Your task to perform on an android device: turn off javascript in the chrome app Image 0: 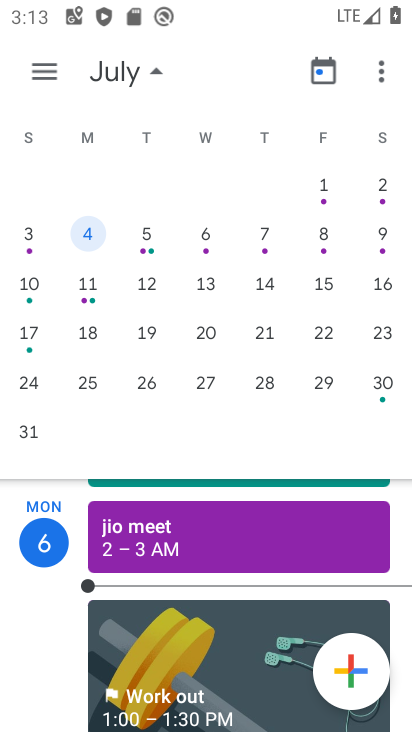
Step 0: press home button
Your task to perform on an android device: turn off javascript in the chrome app Image 1: 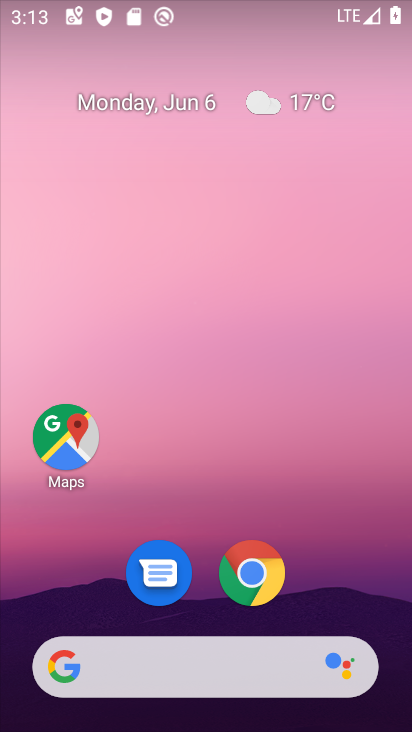
Step 1: drag from (346, 579) to (329, 142)
Your task to perform on an android device: turn off javascript in the chrome app Image 2: 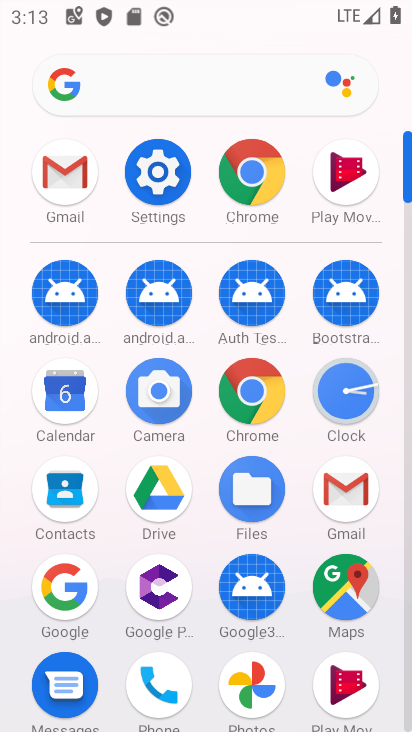
Step 2: click (261, 399)
Your task to perform on an android device: turn off javascript in the chrome app Image 3: 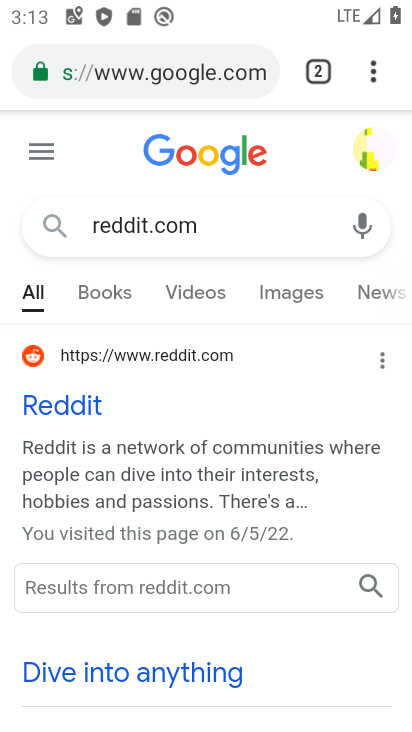
Step 3: click (373, 80)
Your task to perform on an android device: turn off javascript in the chrome app Image 4: 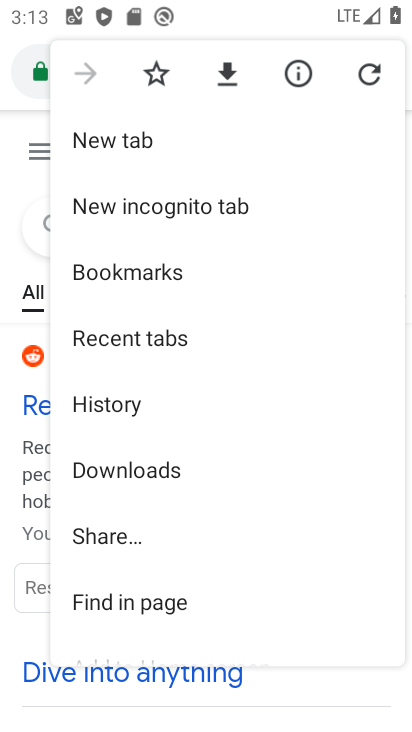
Step 4: drag from (297, 546) to (306, 434)
Your task to perform on an android device: turn off javascript in the chrome app Image 5: 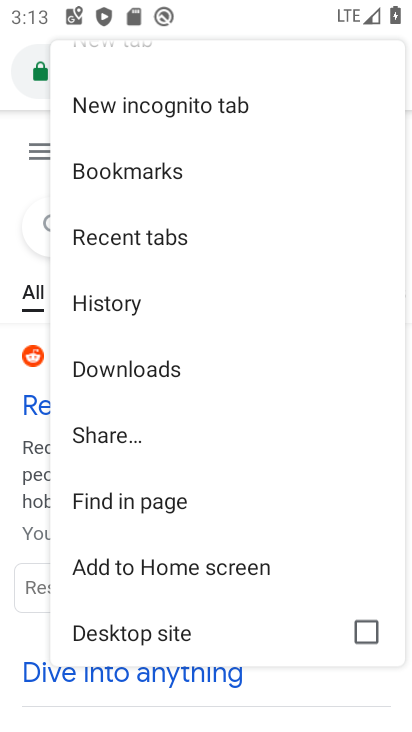
Step 5: drag from (308, 541) to (308, 418)
Your task to perform on an android device: turn off javascript in the chrome app Image 6: 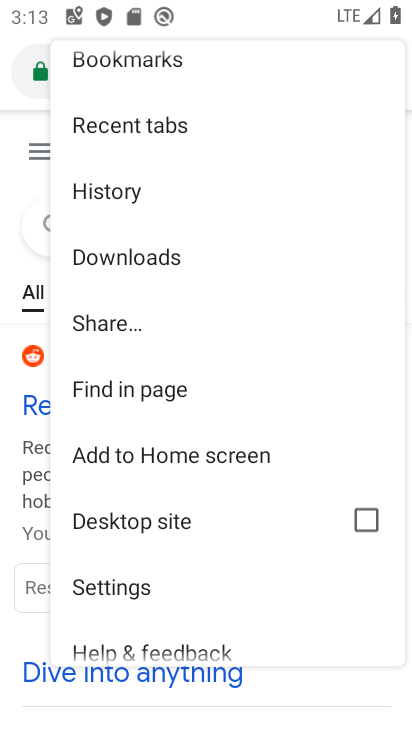
Step 6: click (140, 600)
Your task to perform on an android device: turn off javascript in the chrome app Image 7: 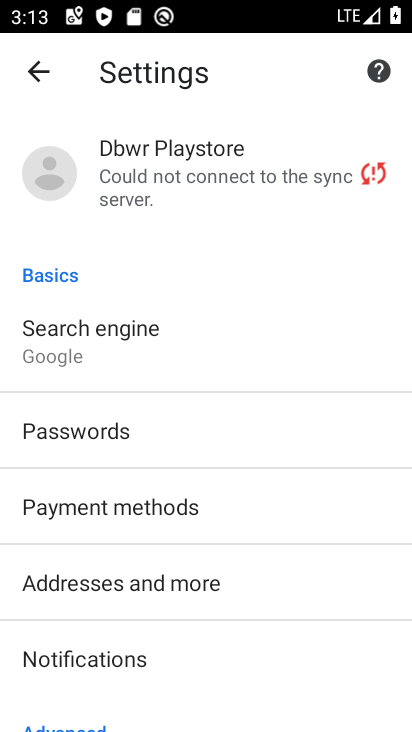
Step 7: drag from (309, 618) to (305, 515)
Your task to perform on an android device: turn off javascript in the chrome app Image 8: 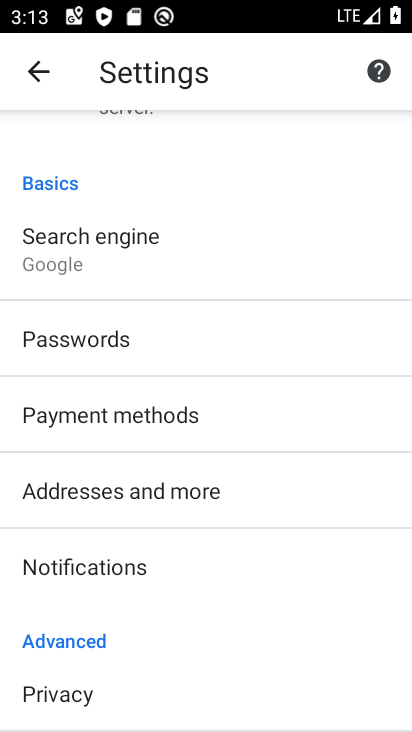
Step 8: drag from (308, 614) to (308, 530)
Your task to perform on an android device: turn off javascript in the chrome app Image 9: 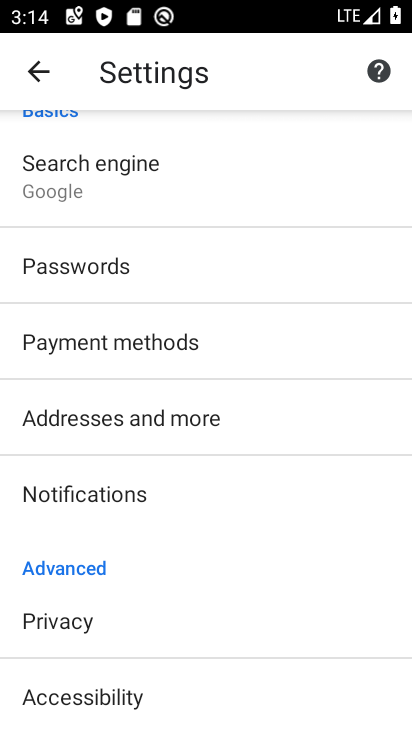
Step 9: drag from (296, 610) to (301, 537)
Your task to perform on an android device: turn off javascript in the chrome app Image 10: 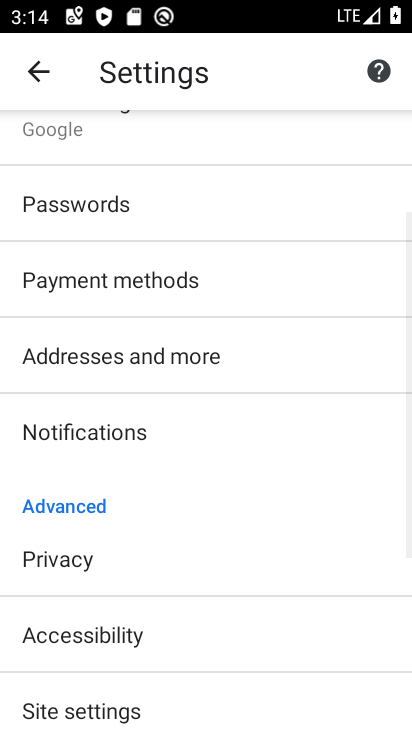
Step 10: drag from (298, 636) to (306, 550)
Your task to perform on an android device: turn off javascript in the chrome app Image 11: 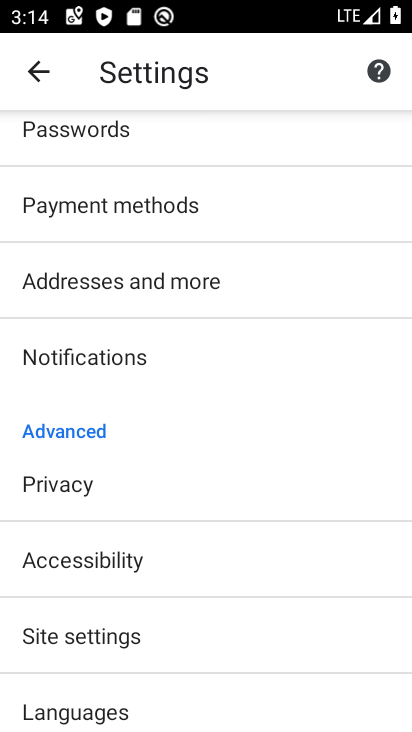
Step 11: drag from (291, 642) to (291, 559)
Your task to perform on an android device: turn off javascript in the chrome app Image 12: 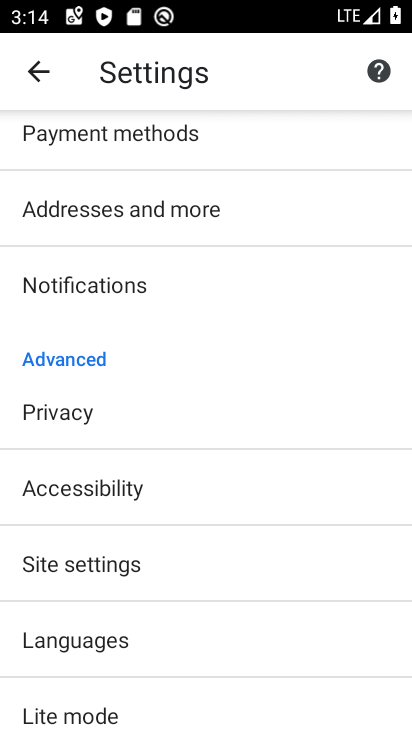
Step 12: drag from (277, 638) to (281, 548)
Your task to perform on an android device: turn off javascript in the chrome app Image 13: 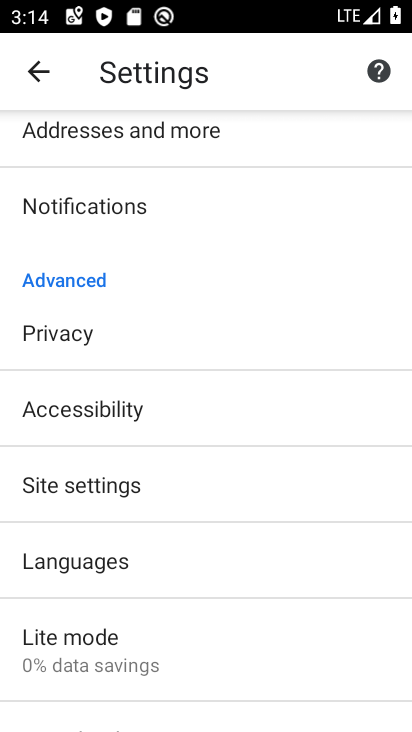
Step 13: drag from (279, 639) to (278, 483)
Your task to perform on an android device: turn off javascript in the chrome app Image 14: 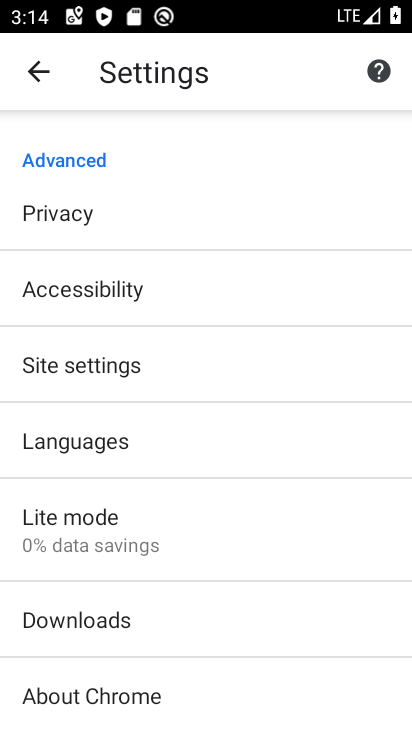
Step 14: drag from (277, 602) to (278, 481)
Your task to perform on an android device: turn off javascript in the chrome app Image 15: 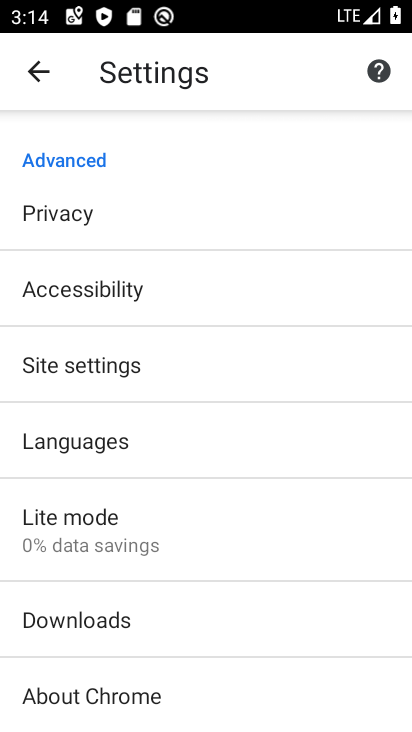
Step 15: click (232, 371)
Your task to perform on an android device: turn off javascript in the chrome app Image 16: 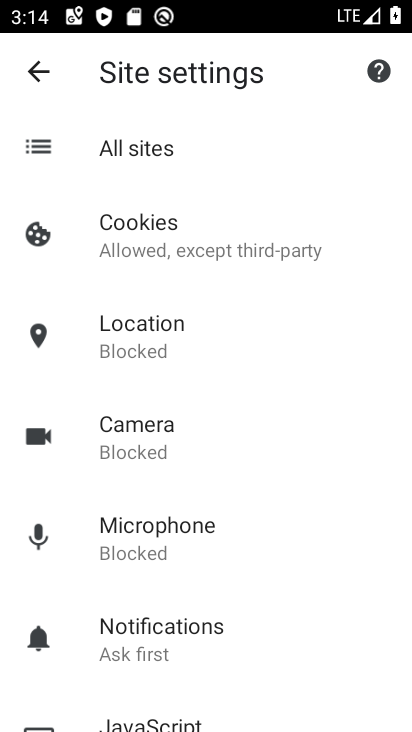
Step 16: drag from (338, 496) to (333, 399)
Your task to perform on an android device: turn off javascript in the chrome app Image 17: 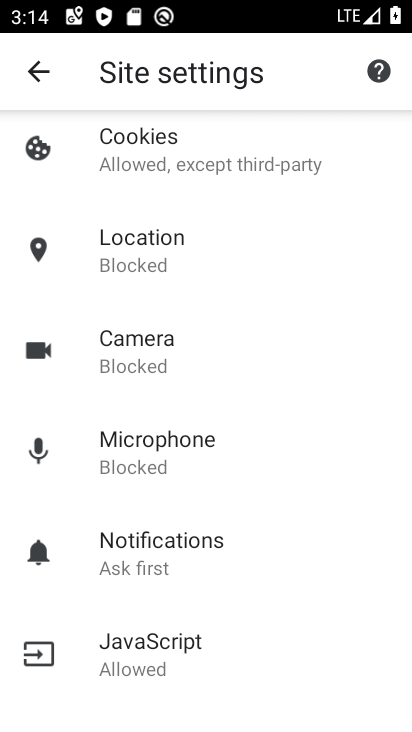
Step 17: drag from (325, 548) to (326, 439)
Your task to perform on an android device: turn off javascript in the chrome app Image 18: 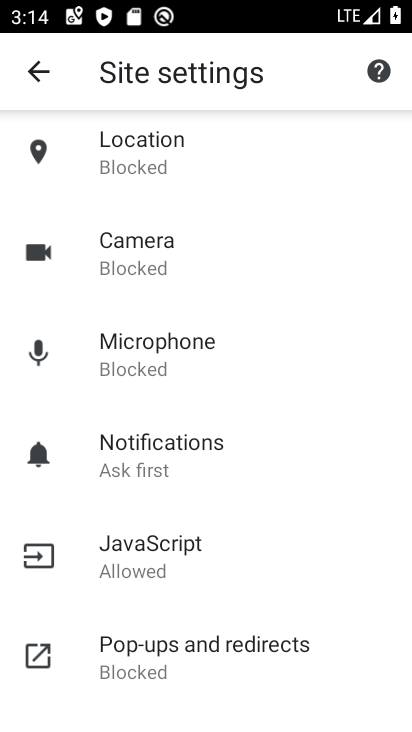
Step 18: drag from (330, 570) to (332, 438)
Your task to perform on an android device: turn off javascript in the chrome app Image 19: 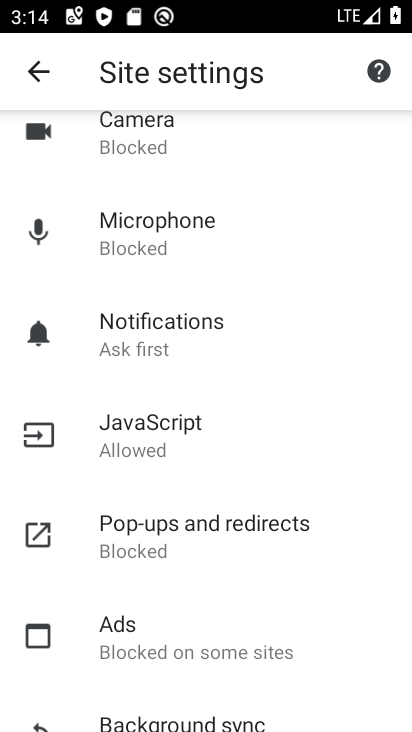
Step 19: click (217, 456)
Your task to perform on an android device: turn off javascript in the chrome app Image 20: 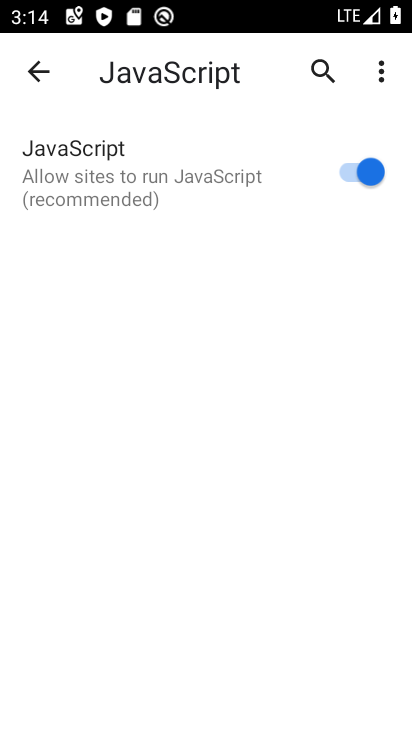
Step 20: click (371, 174)
Your task to perform on an android device: turn off javascript in the chrome app Image 21: 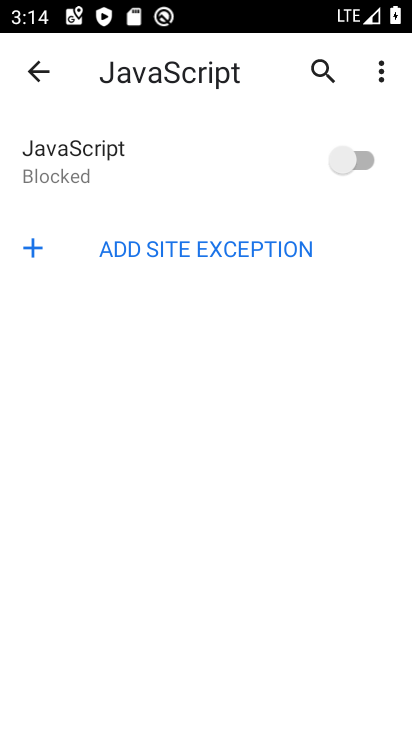
Step 21: task complete